Your task to perform on an android device: toggle translation in the chrome app Image 0: 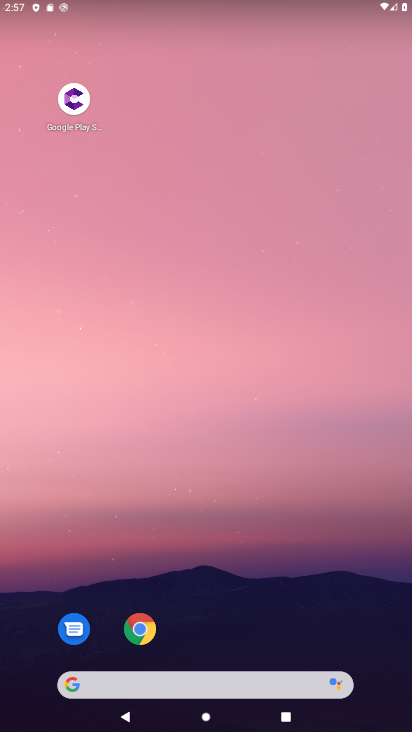
Step 0: drag from (242, 626) to (262, 243)
Your task to perform on an android device: toggle translation in the chrome app Image 1: 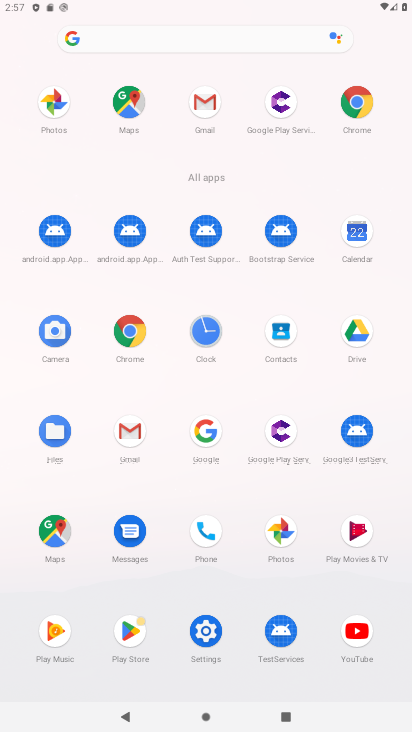
Step 1: click (357, 113)
Your task to perform on an android device: toggle translation in the chrome app Image 2: 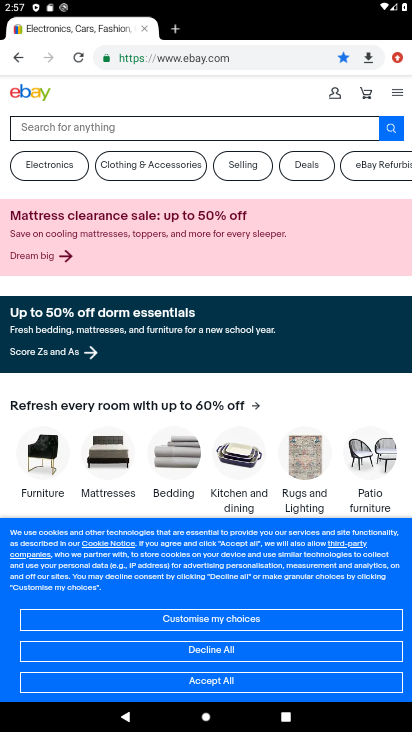
Step 2: click (399, 68)
Your task to perform on an android device: toggle translation in the chrome app Image 3: 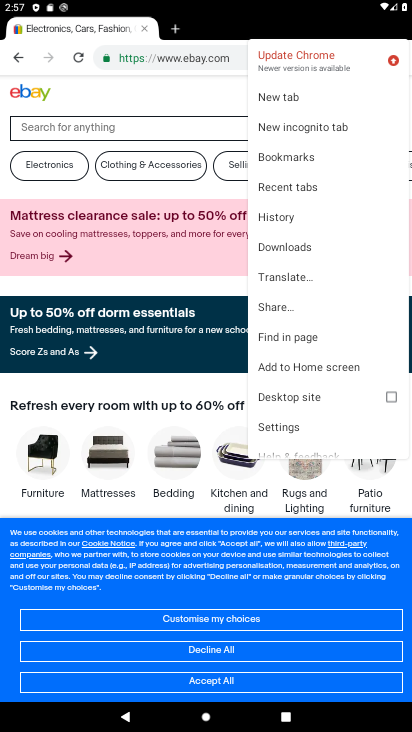
Step 3: click (290, 430)
Your task to perform on an android device: toggle translation in the chrome app Image 4: 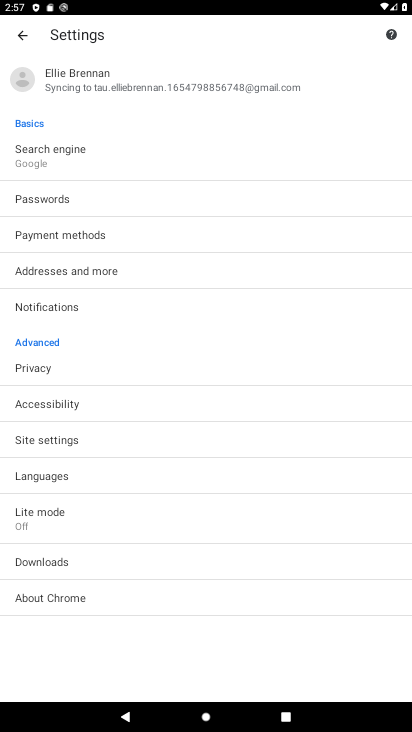
Step 4: click (113, 475)
Your task to perform on an android device: toggle translation in the chrome app Image 5: 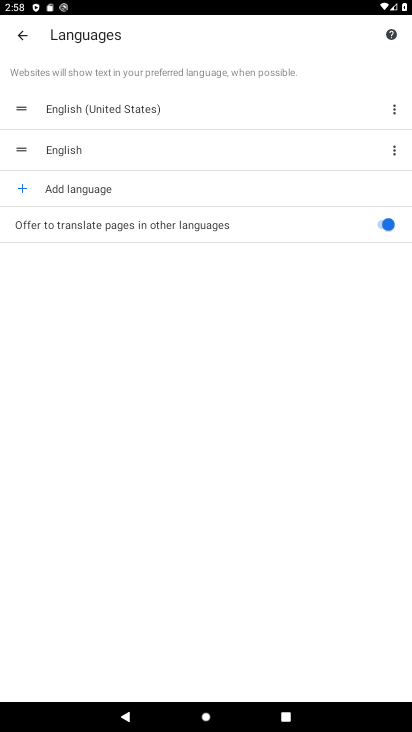
Step 5: click (380, 225)
Your task to perform on an android device: toggle translation in the chrome app Image 6: 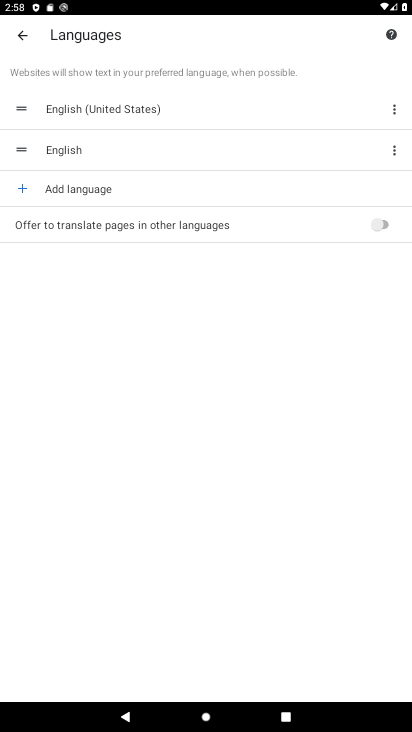
Step 6: task complete